Your task to perform on an android device: Open Android settings Image 0: 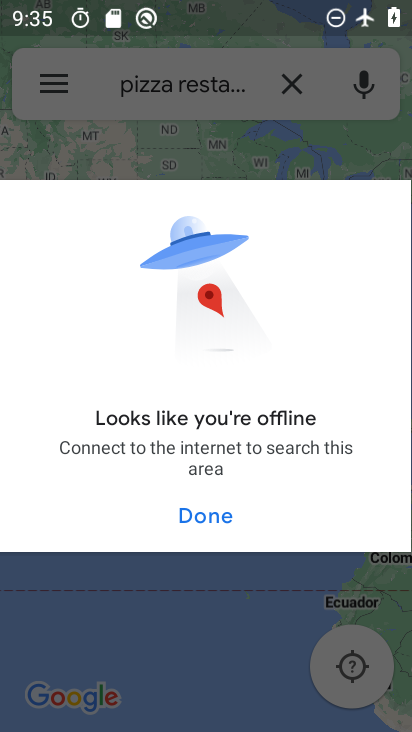
Step 0: press home button
Your task to perform on an android device: Open Android settings Image 1: 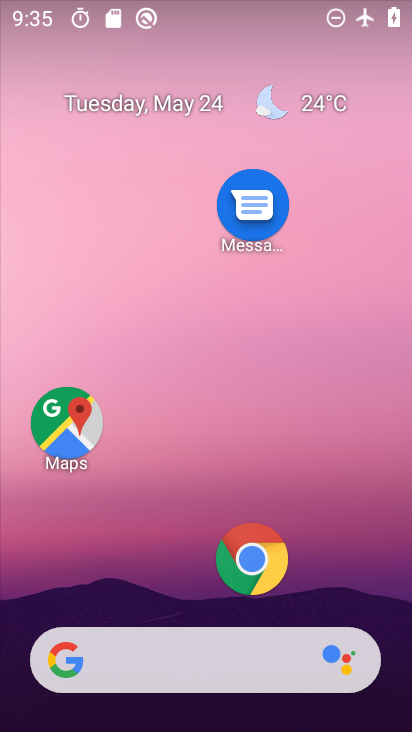
Step 1: drag from (189, 594) to (199, 206)
Your task to perform on an android device: Open Android settings Image 2: 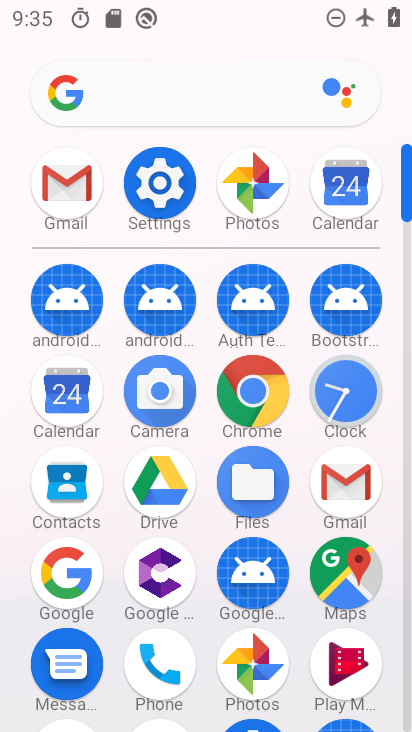
Step 2: click (154, 197)
Your task to perform on an android device: Open Android settings Image 3: 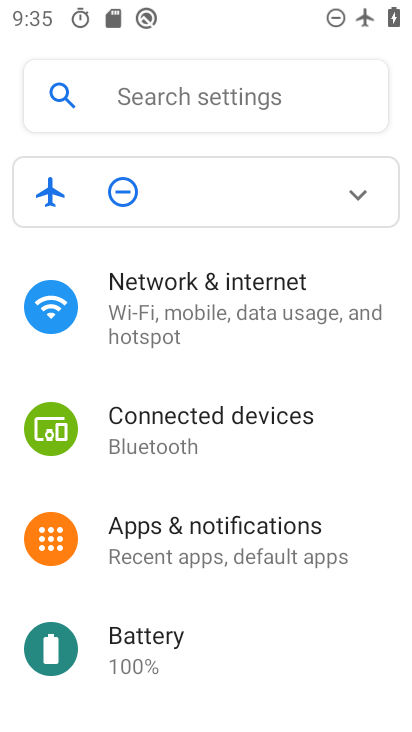
Step 3: task complete